Your task to perform on an android device: toggle notifications settings in the gmail app Image 0: 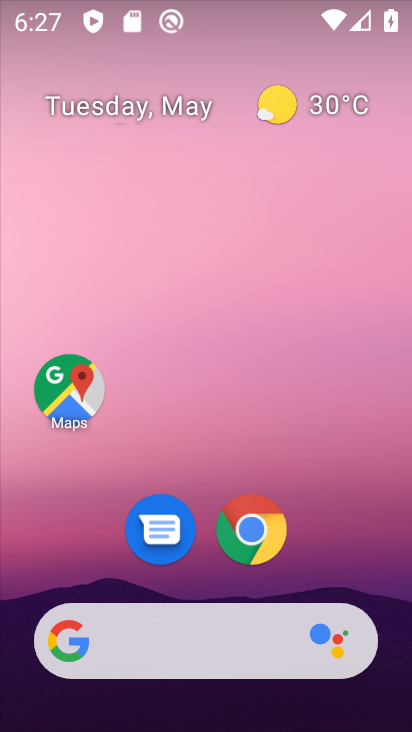
Step 0: drag from (402, 635) to (244, 74)
Your task to perform on an android device: toggle notifications settings in the gmail app Image 1: 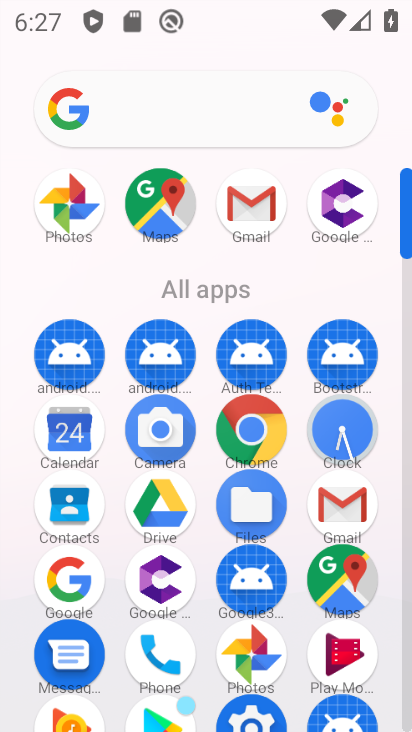
Step 1: click (267, 176)
Your task to perform on an android device: toggle notifications settings in the gmail app Image 2: 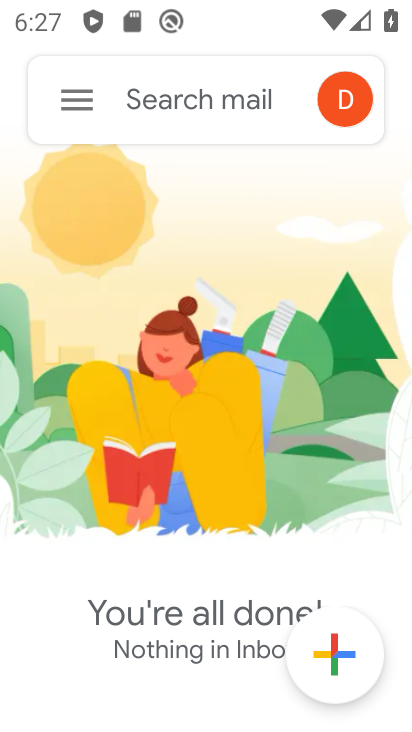
Step 2: click (69, 102)
Your task to perform on an android device: toggle notifications settings in the gmail app Image 3: 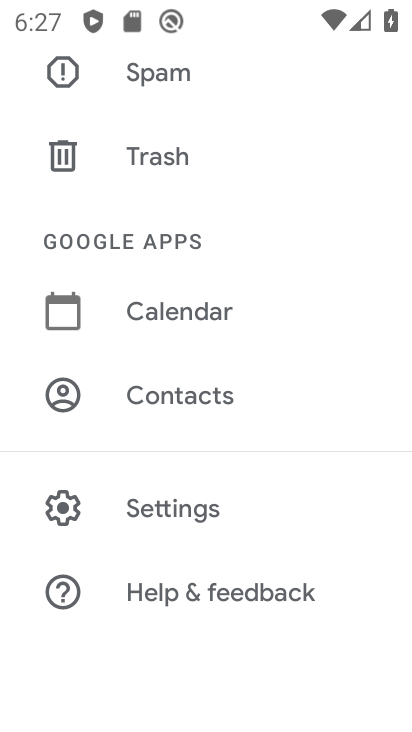
Step 3: click (163, 500)
Your task to perform on an android device: toggle notifications settings in the gmail app Image 4: 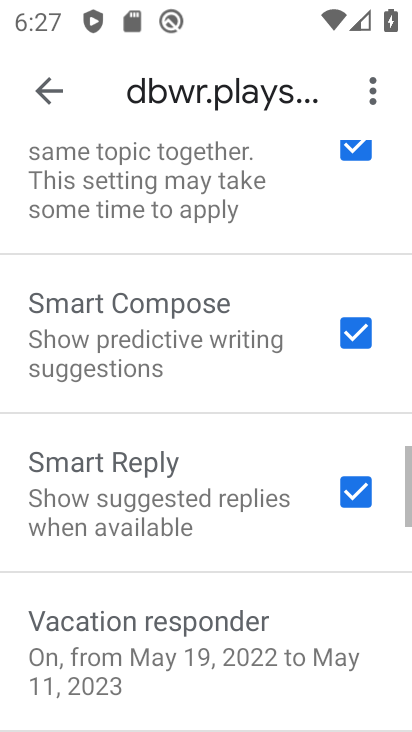
Step 4: drag from (197, 236) to (190, 731)
Your task to perform on an android device: toggle notifications settings in the gmail app Image 5: 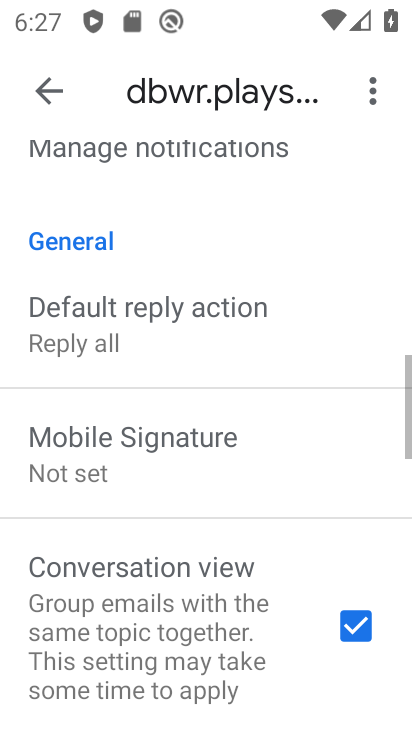
Step 5: drag from (185, 218) to (182, 731)
Your task to perform on an android device: toggle notifications settings in the gmail app Image 6: 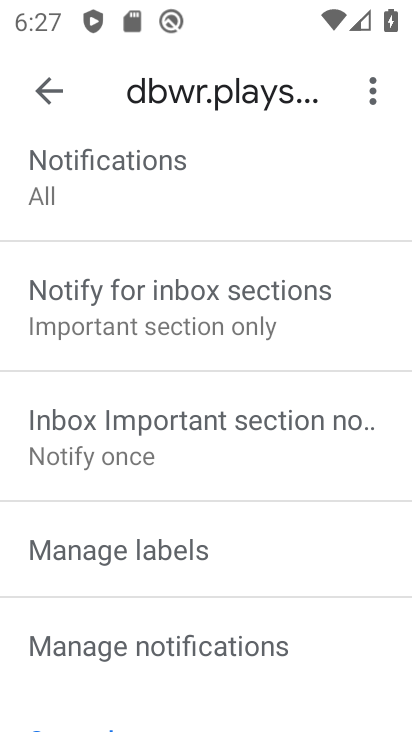
Step 6: drag from (128, 255) to (153, 641)
Your task to perform on an android device: toggle notifications settings in the gmail app Image 7: 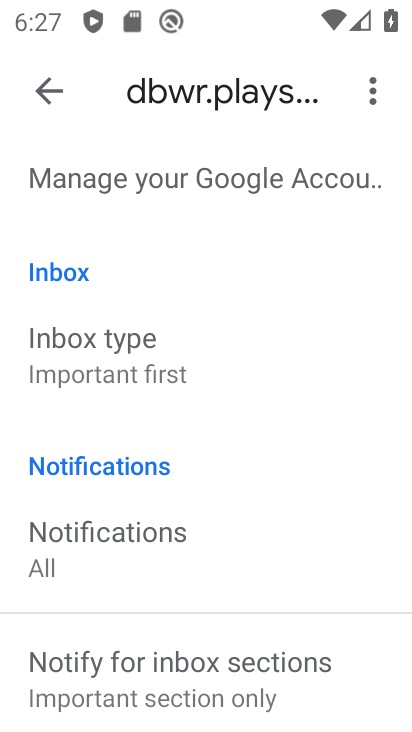
Step 7: click (130, 559)
Your task to perform on an android device: toggle notifications settings in the gmail app Image 8: 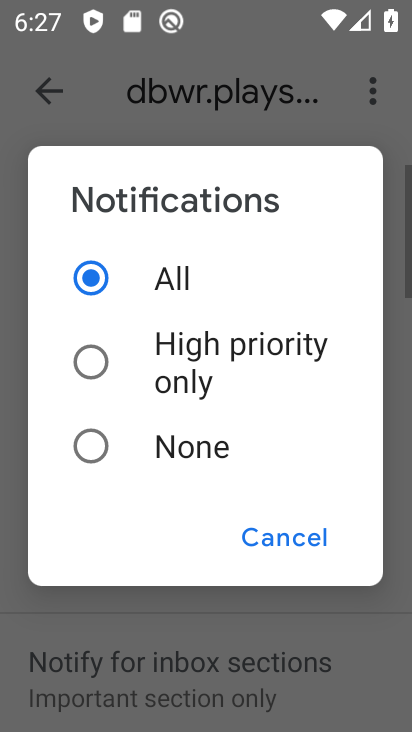
Step 8: click (112, 457)
Your task to perform on an android device: toggle notifications settings in the gmail app Image 9: 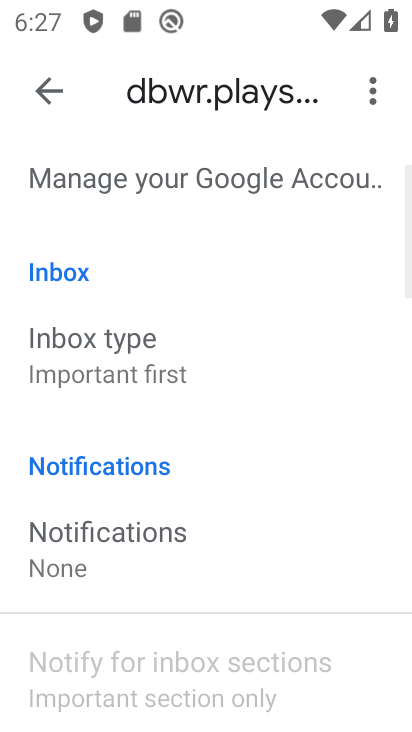
Step 9: task complete